Your task to perform on an android device: turn off picture-in-picture Image 0: 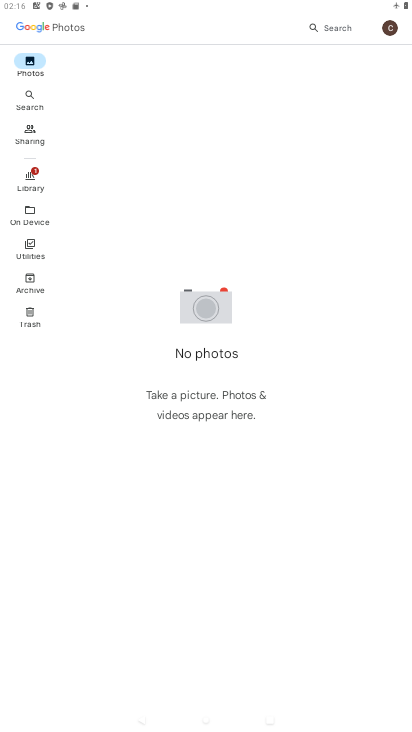
Step 0: press home button
Your task to perform on an android device: turn off picture-in-picture Image 1: 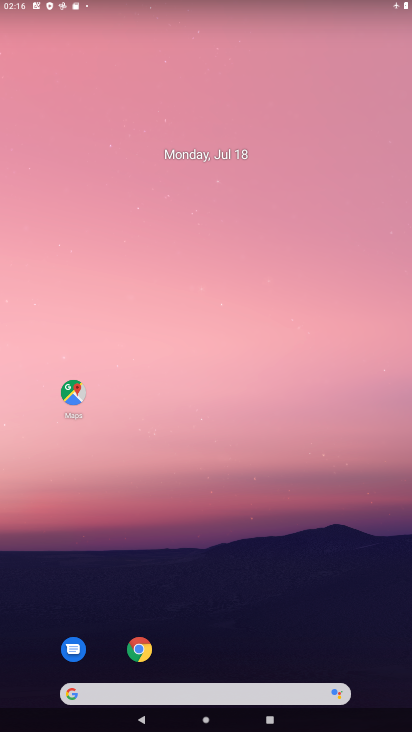
Step 1: click (145, 656)
Your task to perform on an android device: turn off picture-in-picture Image 2: 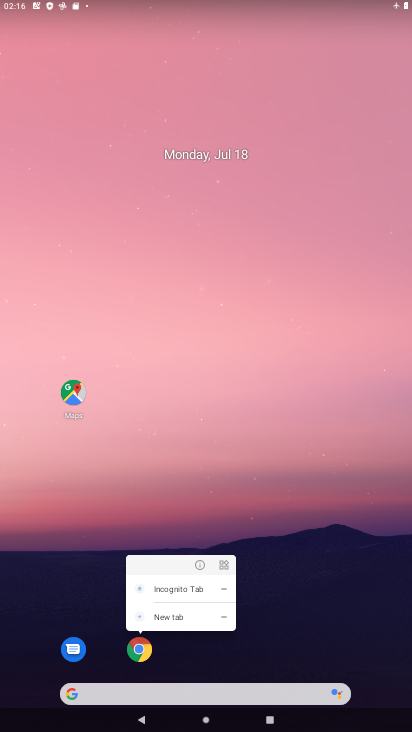
Step 2: click (196, 564)
Your task to perform on an android device: turn off picture-in-picture Image 3: 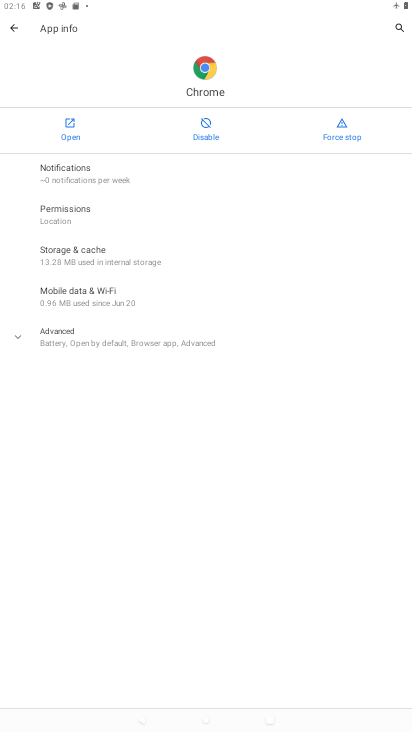
Step 3: click (183, 342)
Your task to perform on an android device: turn off picture-in-picture Image 4: 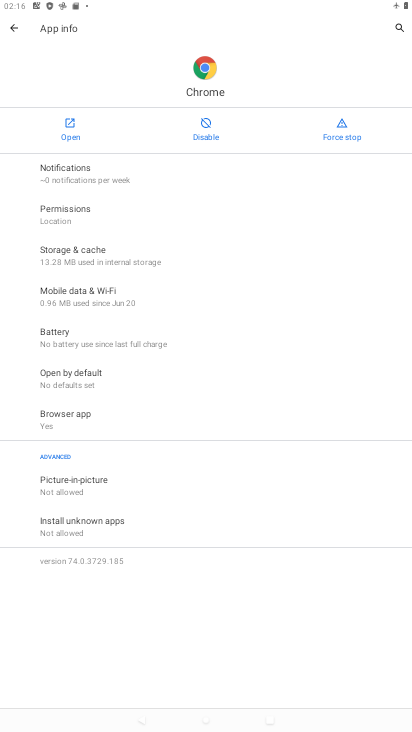
Step 4: click (91, 482)
Your task to perform on an android device: turn off picture-in-picture Image 5: 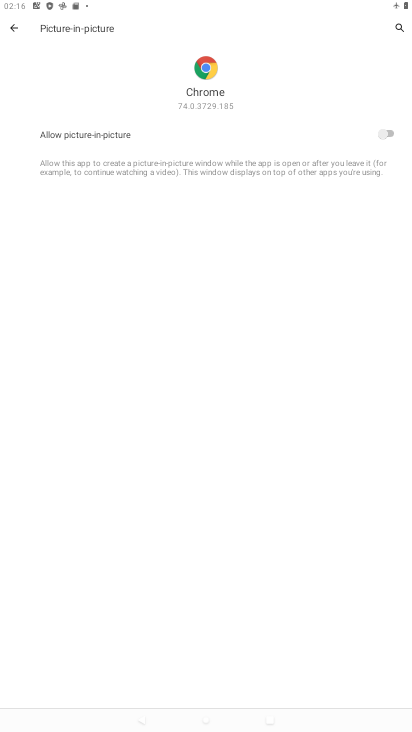
Step 5: task complete